Your task to perform on an android device: Open settings Image 0: 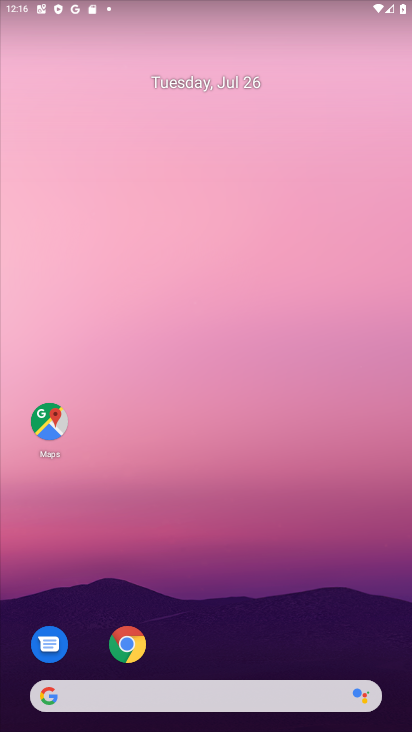
Step 0: drag from (218, 627) to (221, 20)
Your task to perform on an android device: Open settings Image 1: 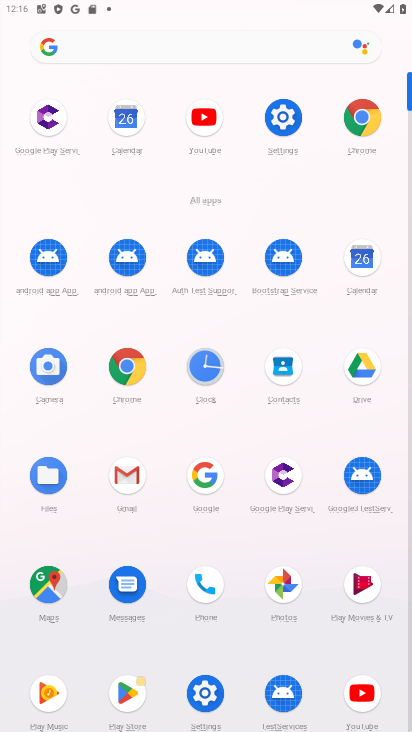
Step 1: click (280, 116)
Your task to perform on an android device: Open settings Image 2: 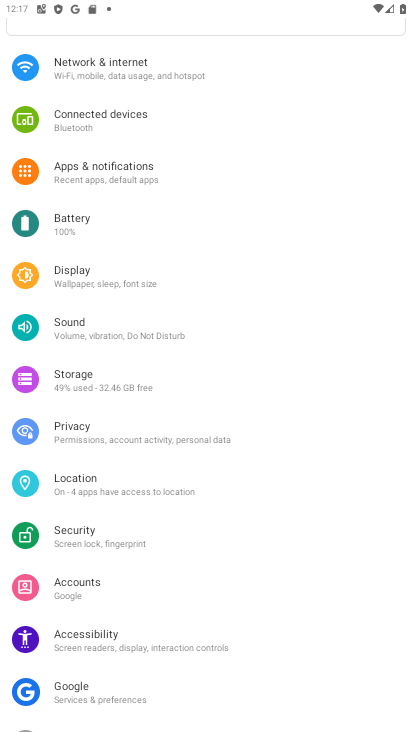
Step 2: task complete